Your task to perform on an android device: Clear the cart on costco. Add "razer naga" to the cart on costco Image 0: 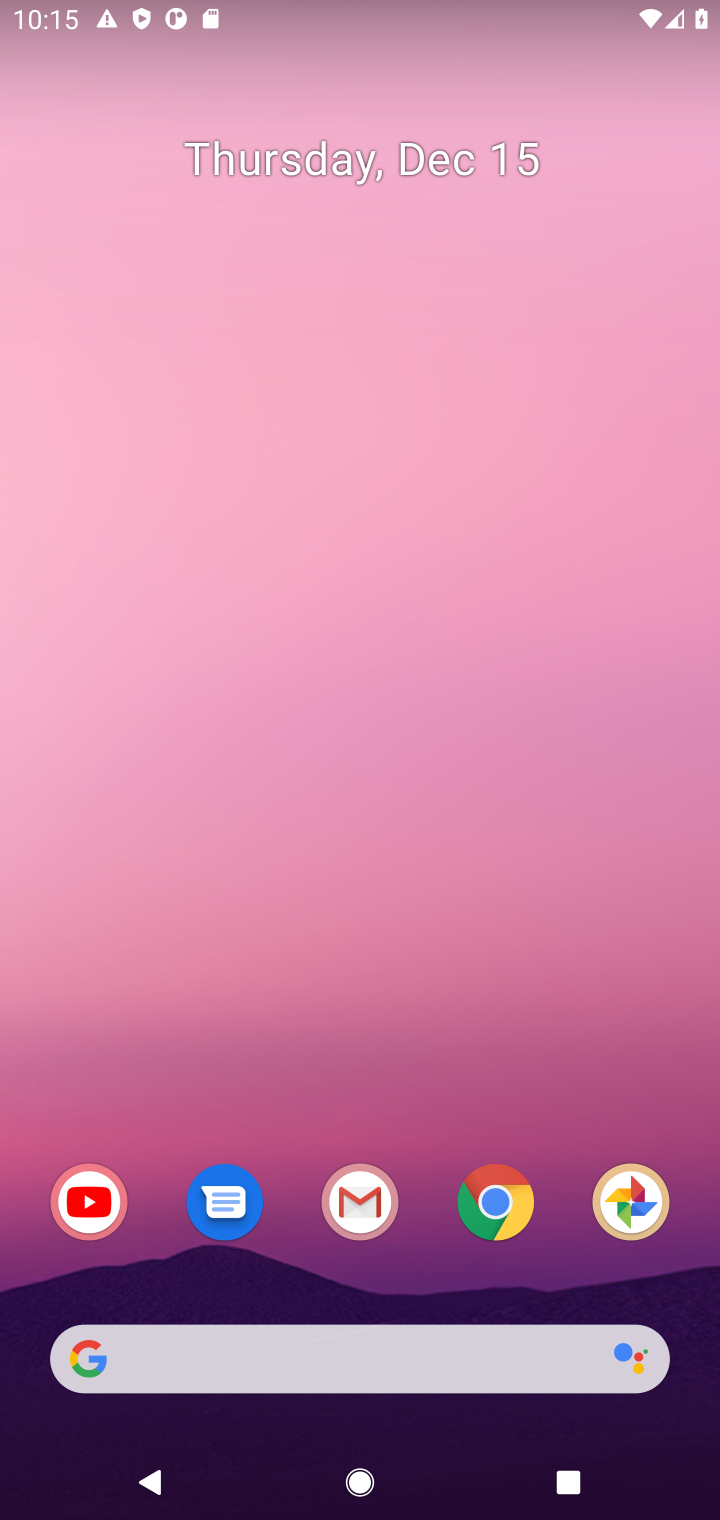
Step 0: click (506, 1207)
Your task to perform on an android device: Clear the cart on costco. Add "razer naga" to the cart on costco Image 1: 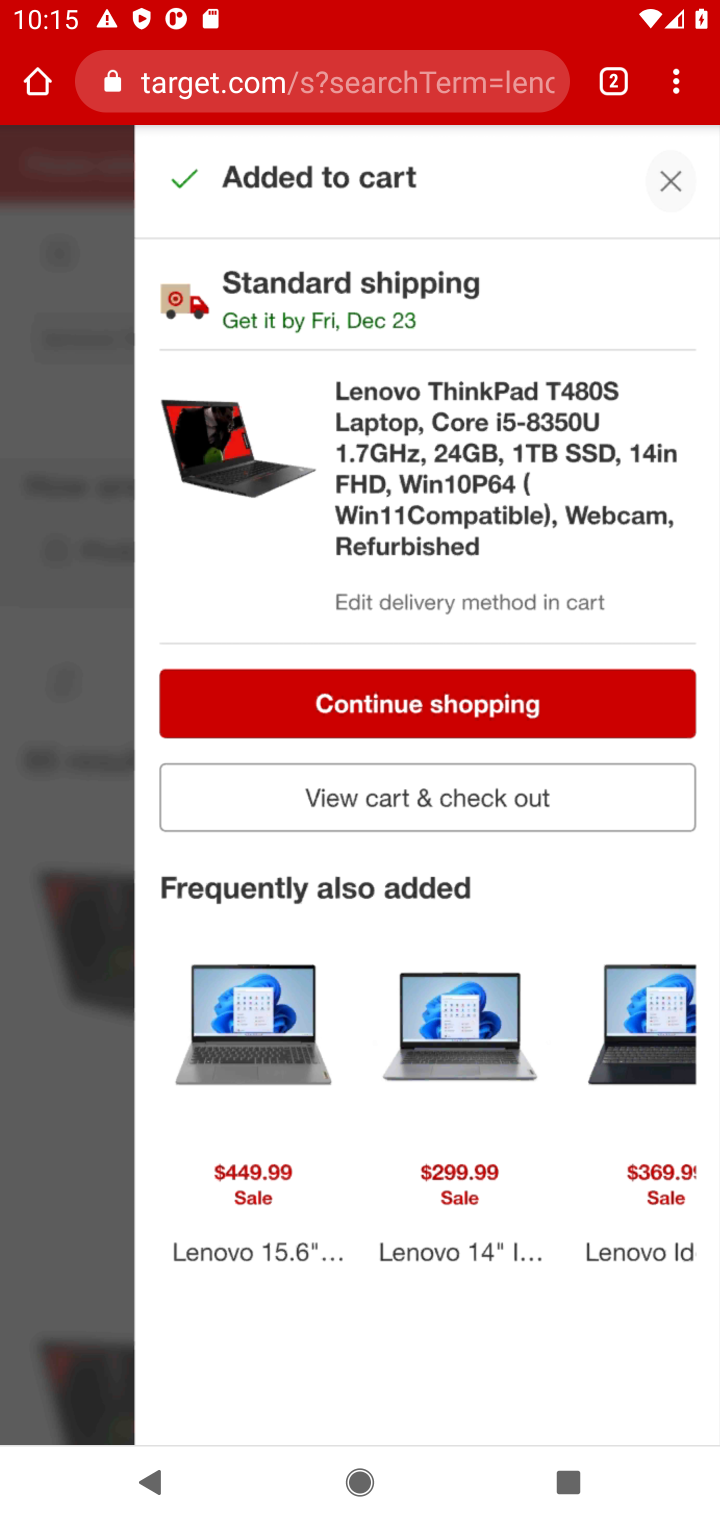
Step 1: click (331, 89)
Your task to perform on an android device: Clear the cart on costco. Add "razer naga" to the cart on costco Image 2: 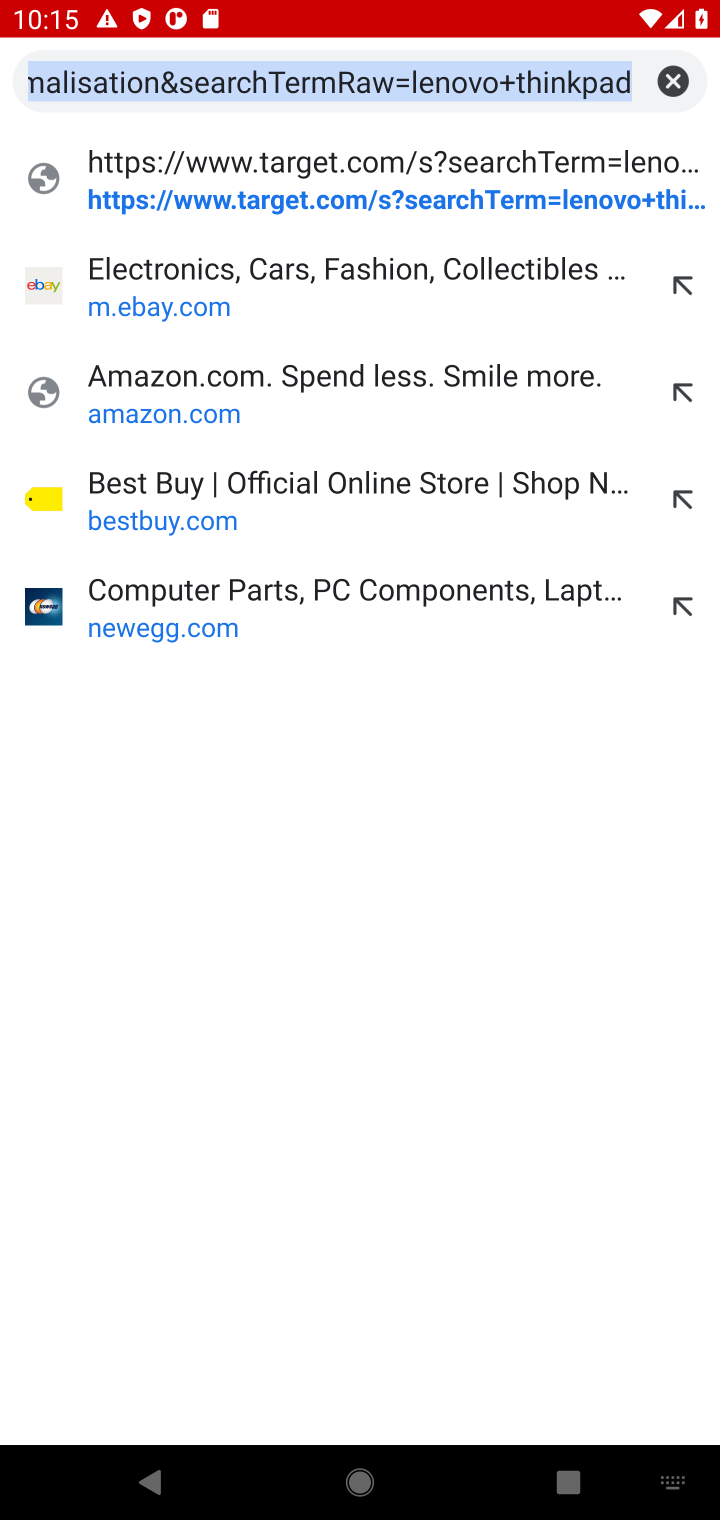
Step 2: type "costco.com"
Your task to perform on an android device: Clear the cart on costco. Add "razer naga" to the cart on costco Image 3: 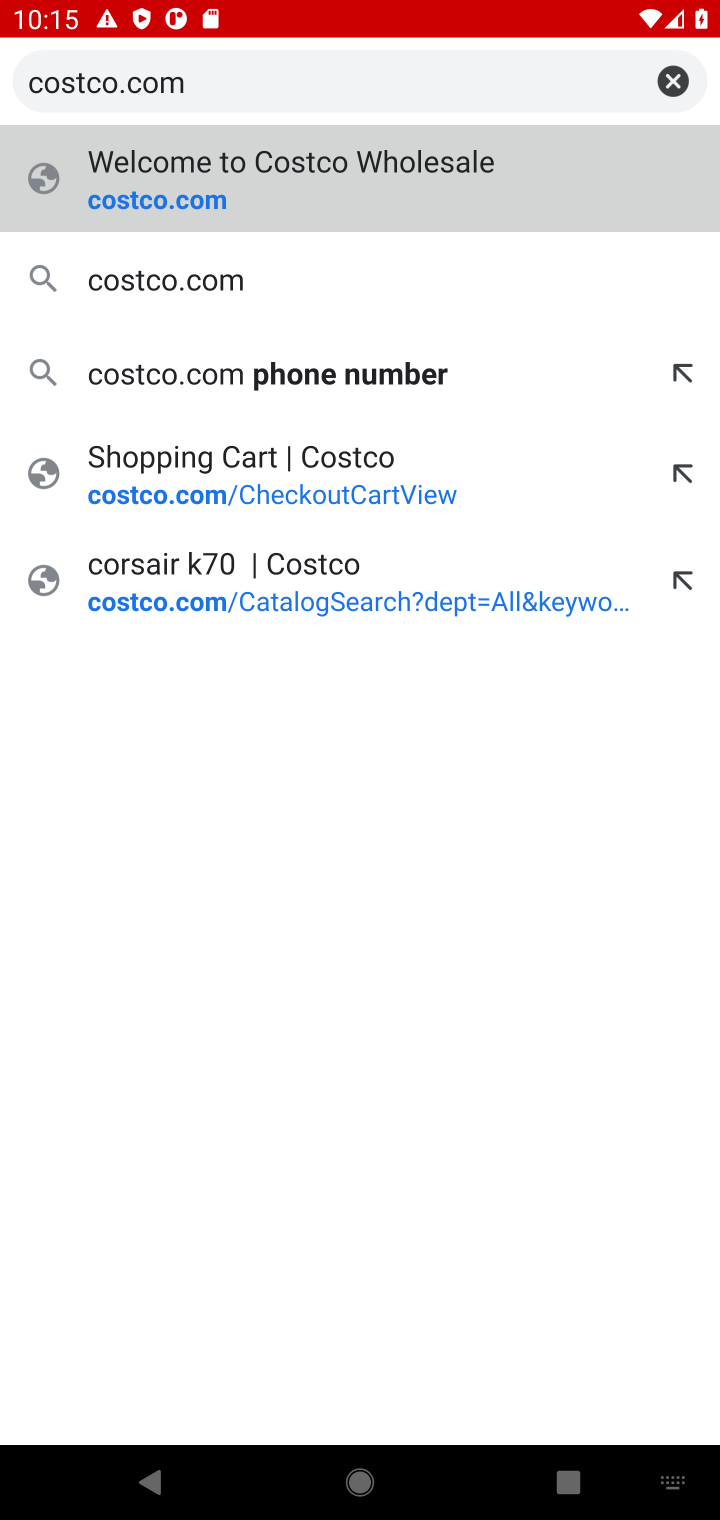
Step 3: click (177, 202)
Your task to perform on an android device: Clear the cart on costco. Add "razer naga" to the cart on costco Image 4: 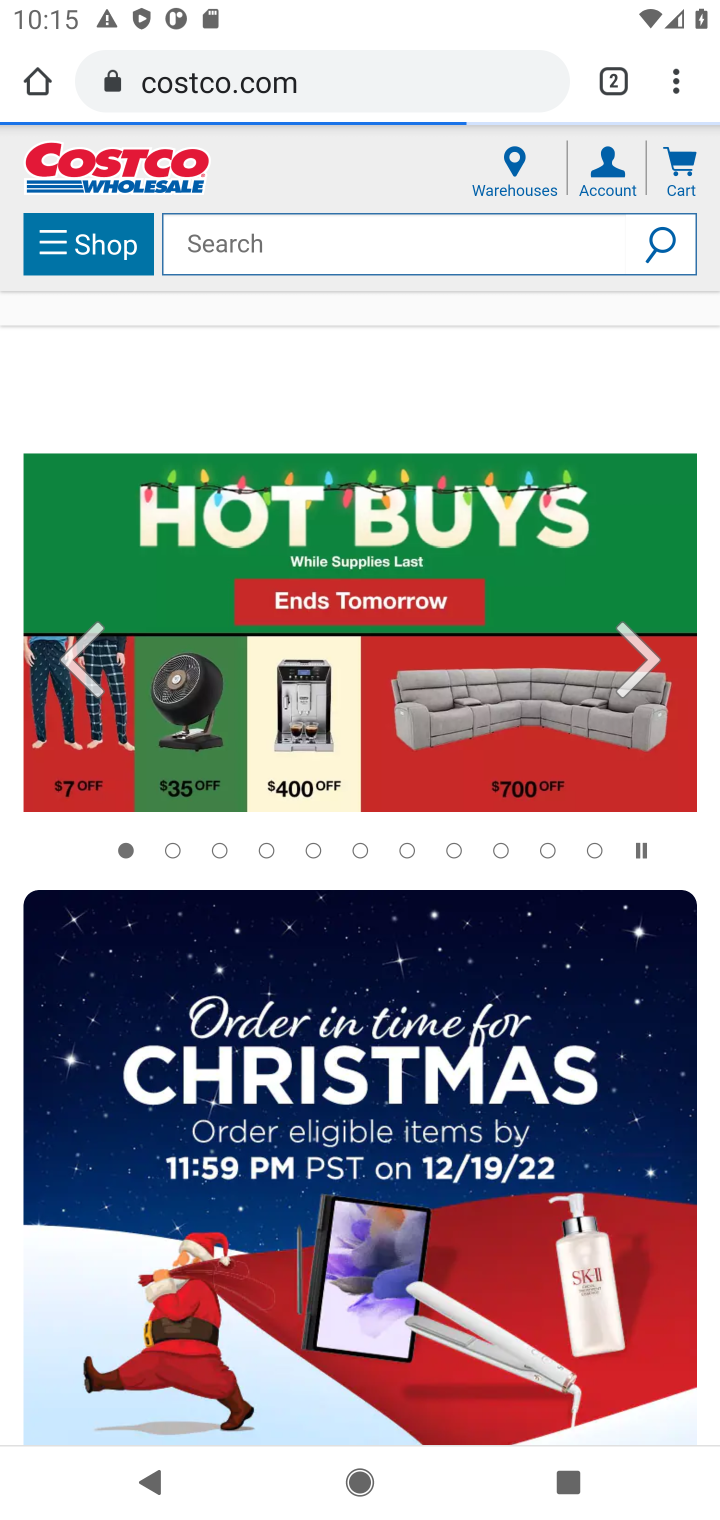
Step 4: click (679, 166)
Your task to perform on an android device: Clear the cart on costco. Add "razer naga" to the cart on costco Image 5: 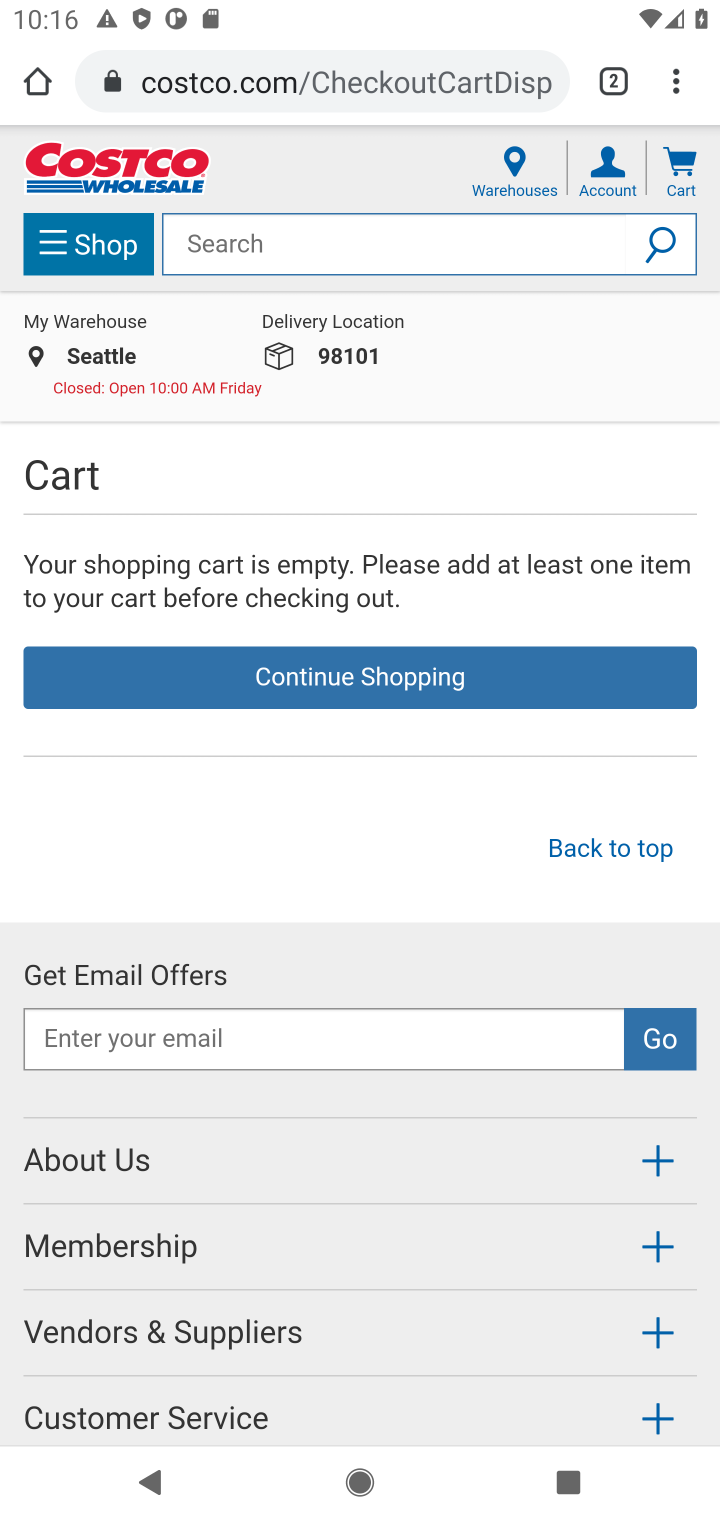
Step 5: click (260, 249)
Your task to perform on an android device: Clear the cart on costco. Add "razer naga" to the cart on costco Image 6: 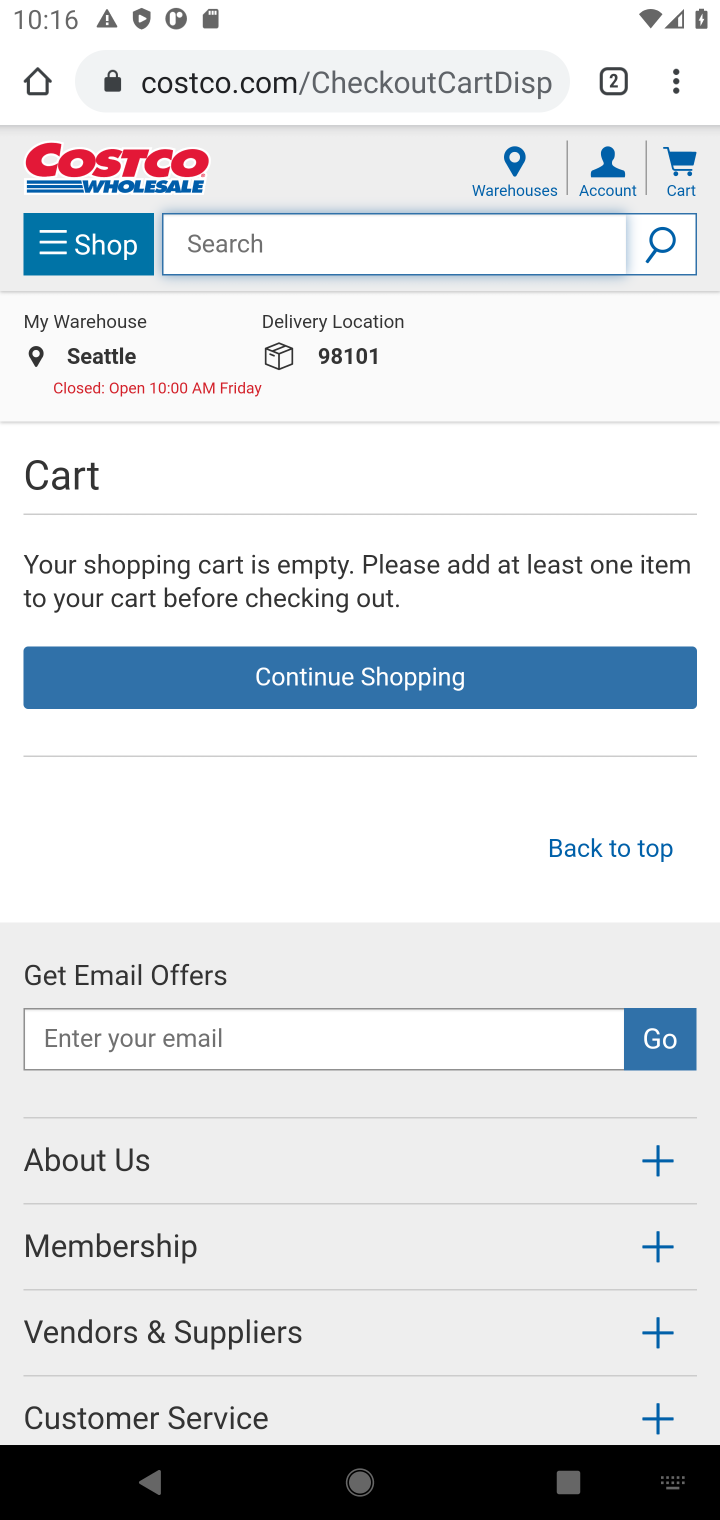
Step 6: type "razer naga"
Your task to perform on an android device: Clear the cart on costco. Add "razer naga" to the cart on costco Image 7: 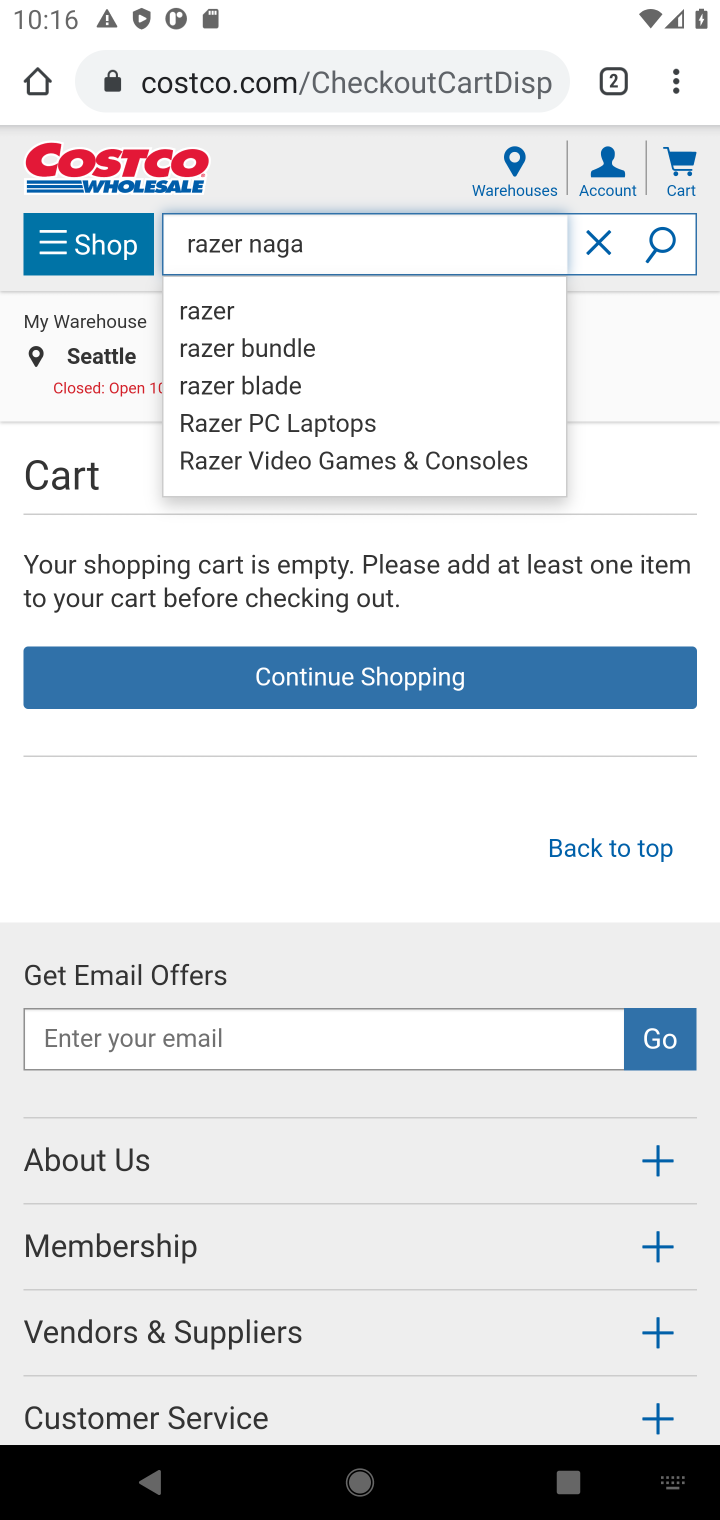
Step 7: click (650, 244)
Your task to perform on an android device: Clear the cart on costco. Add "razer naga" to the cart on costco Image 8: 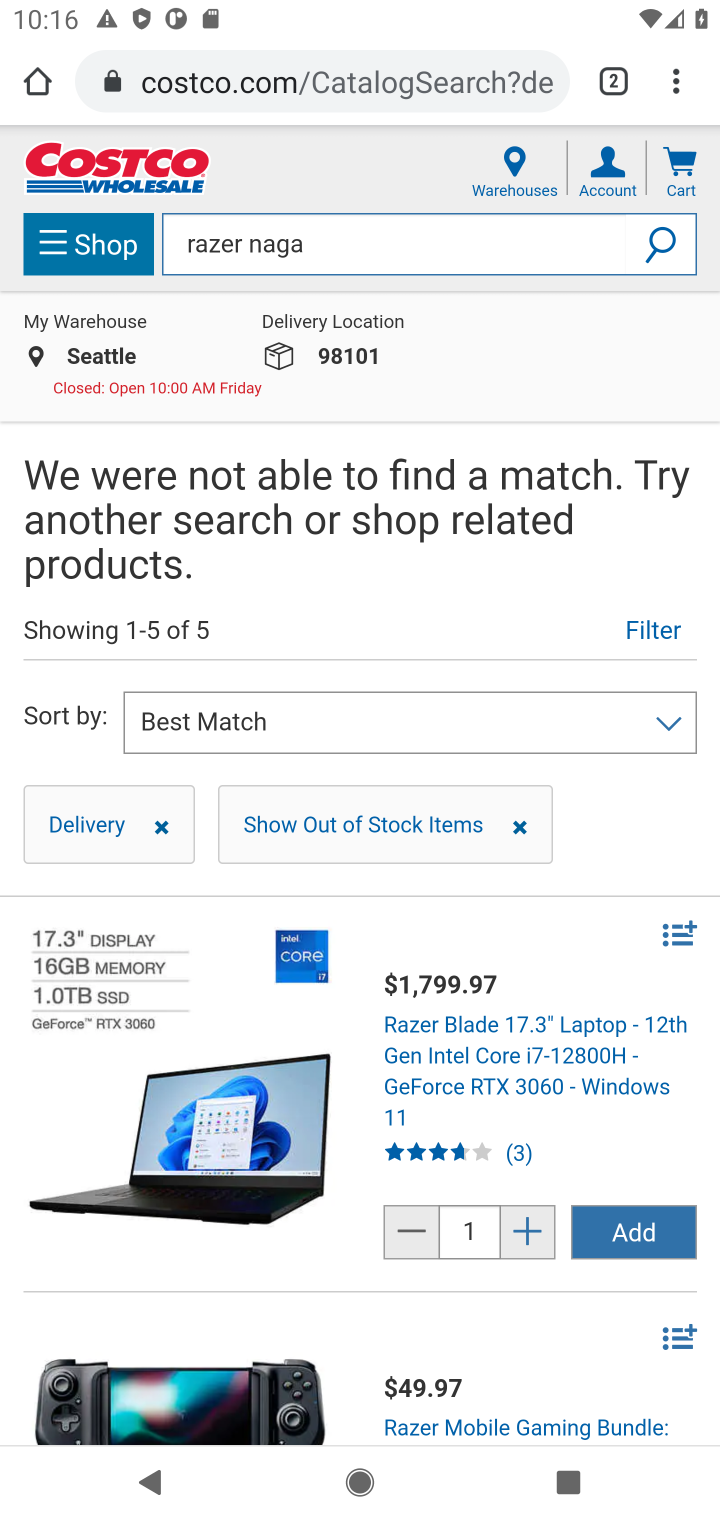
Step 8: task complete